Your task to perform on an android device: Go to display settings Image 0: 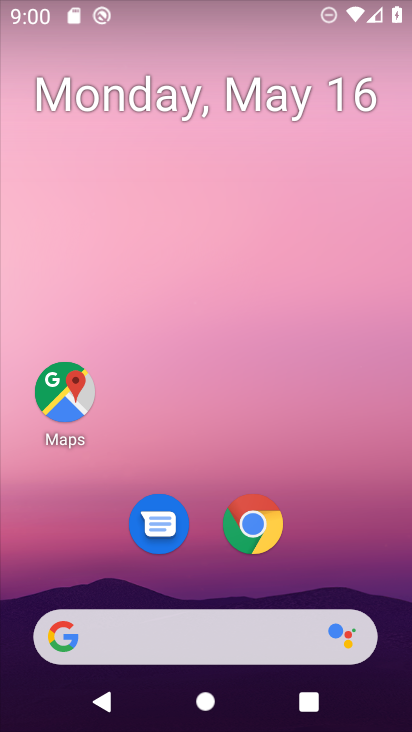
Step 0: drag from (340, 530) to (306, 55)
Your task to perform on an android device: Go to display settings Image 1: 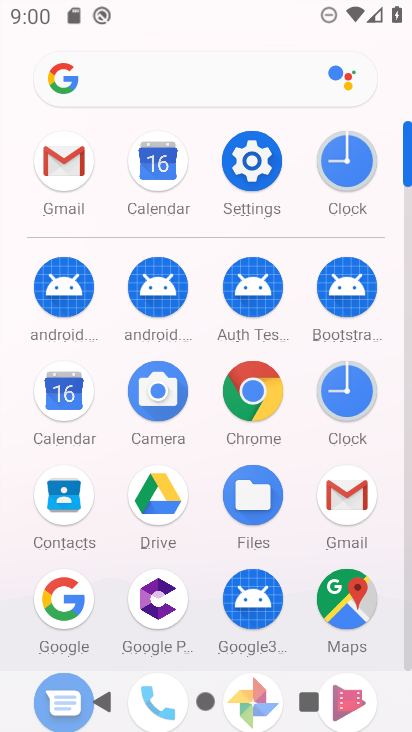
Step 1: click (258, 149)
Your task to perform on an android device: Go to display settings Image 2: 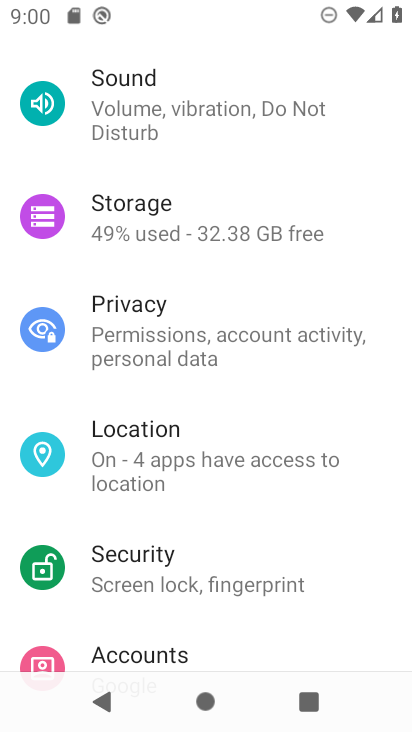
Step 2: drag from (250, 209) to (222, 624)
Your task to perform on an android device: Go to display settings Image 3: 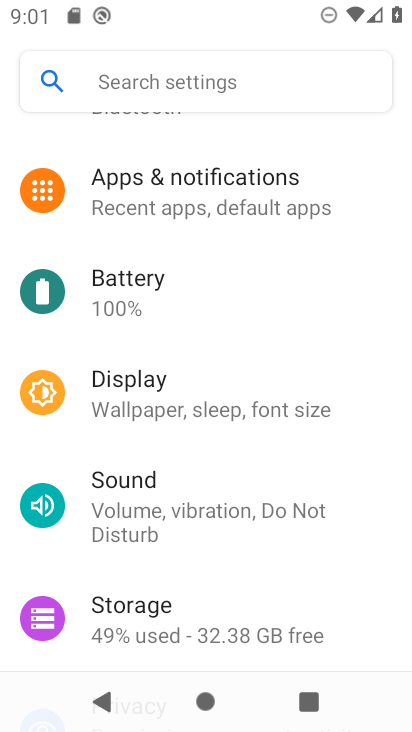
Step 3: click (226, 397)
Your task to perform on an android device: Go to display settings Image 4: 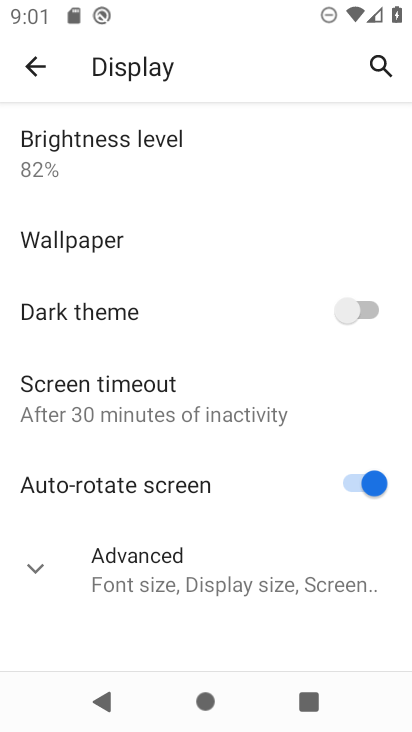
Step 4: task complete